Your task to perform on an android device: Open my contact list Image 0: 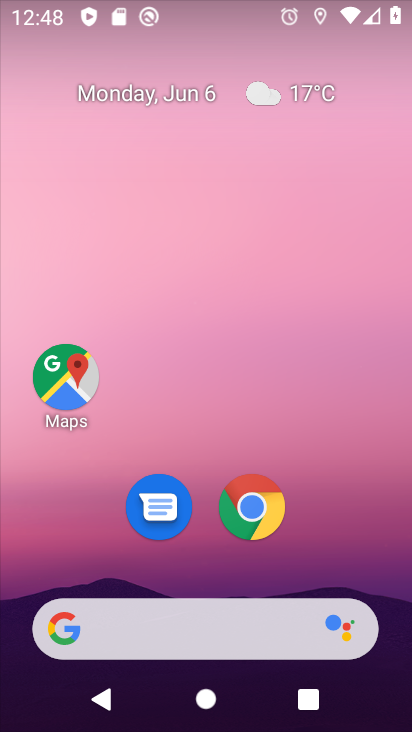
Step 0: drag from (334, 498) to (304, 6)
Your task to perform on an android device: Open my contact list Image 1: 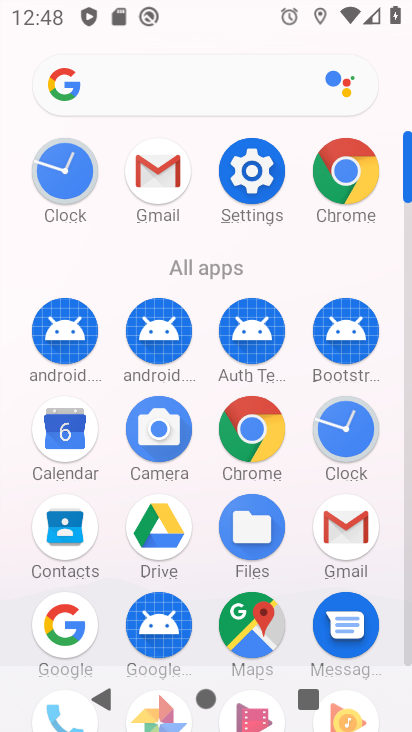
Step 1: click (70, 533)
Your task to perform on an android device: Open my contact list Image 2: 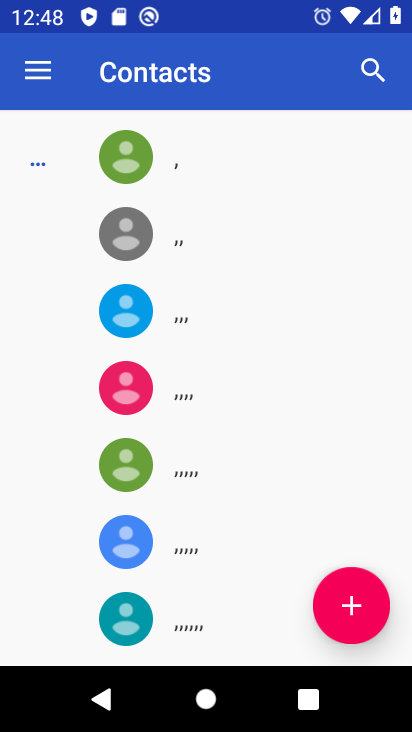
Step 2: task complete